Your task to perform on an android device: open app "Spotify: Music and Podcasts" Image 0: 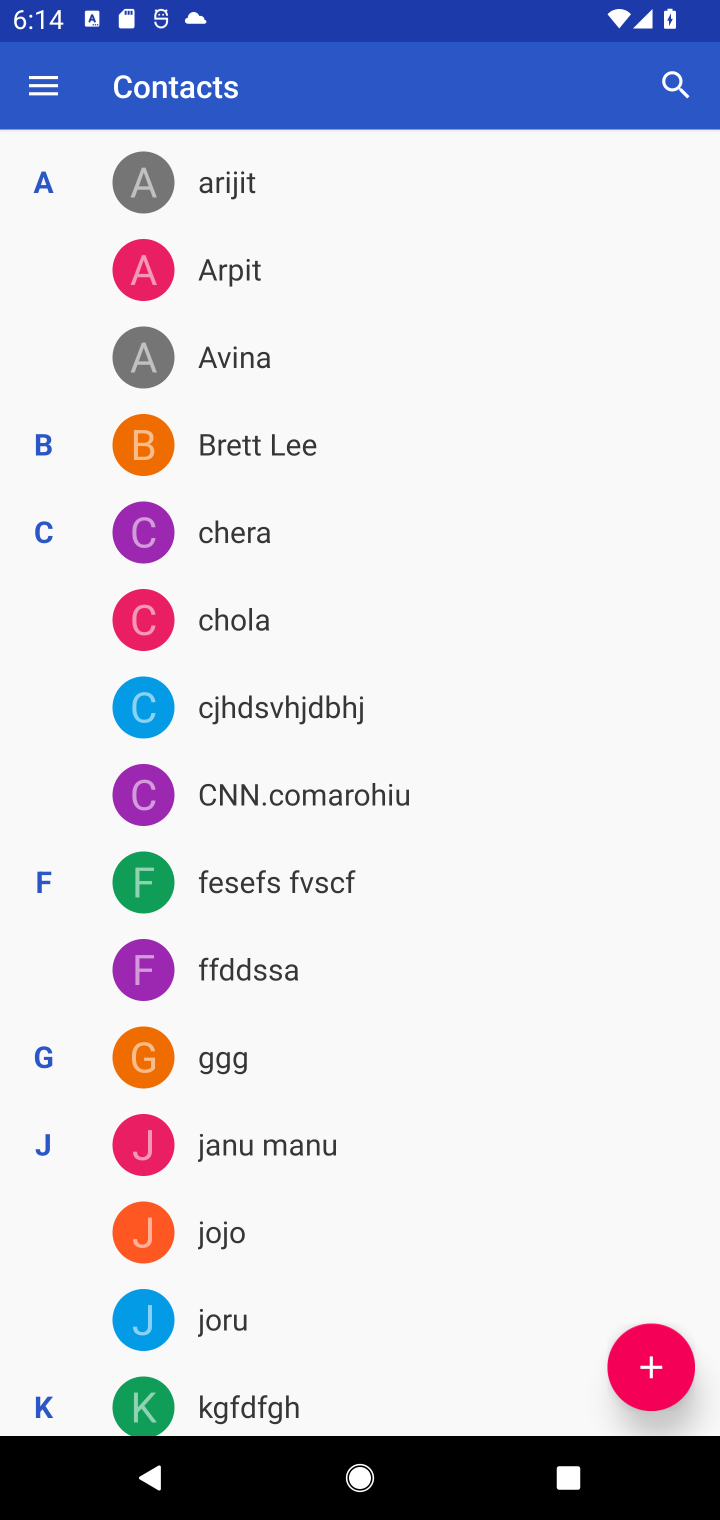
Step 0: press home button
Your task to perform on an android device: open app "Spotify: Music and Podcasts" Image 1: 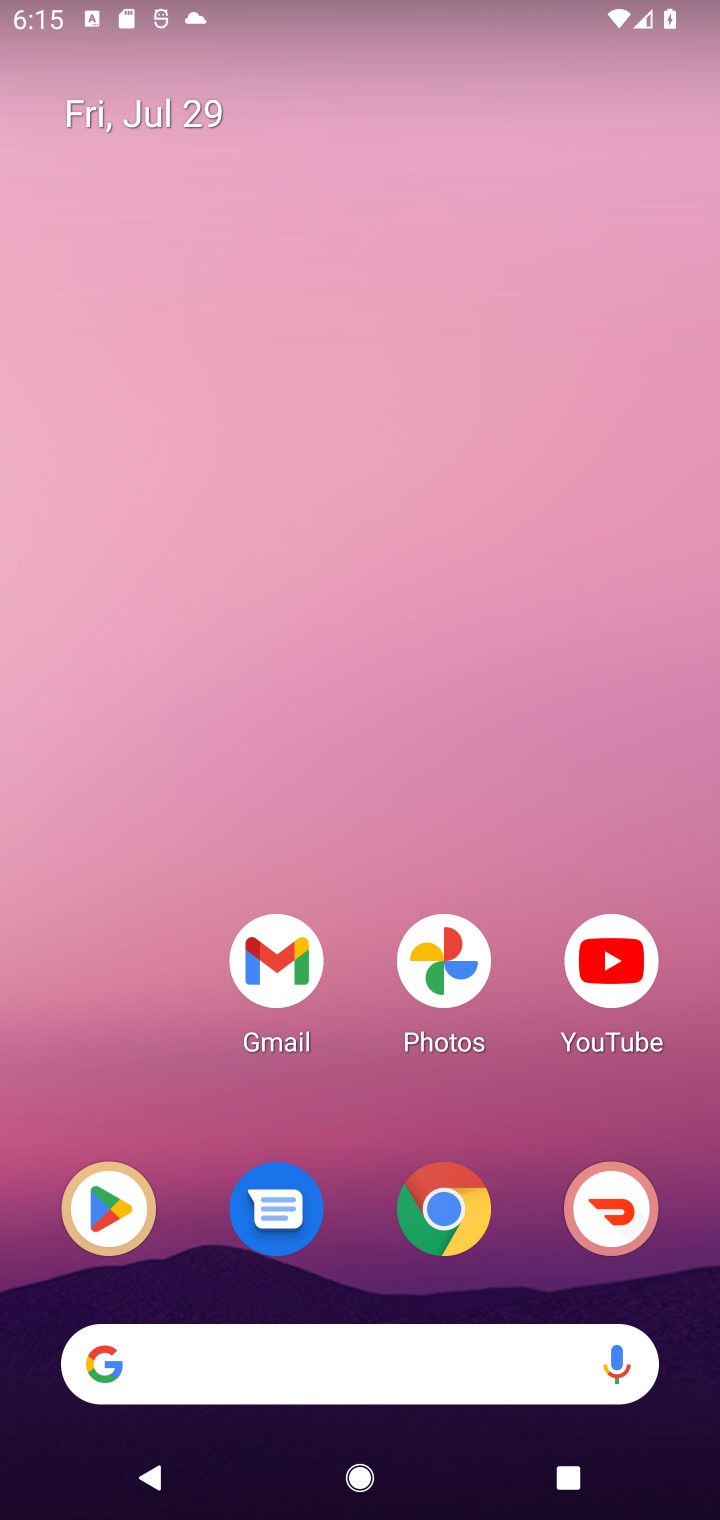
Step 1: click (106, 1213)
Your task to perform on an android device: open app "Spotify: Music and Podcasts" Image 2: 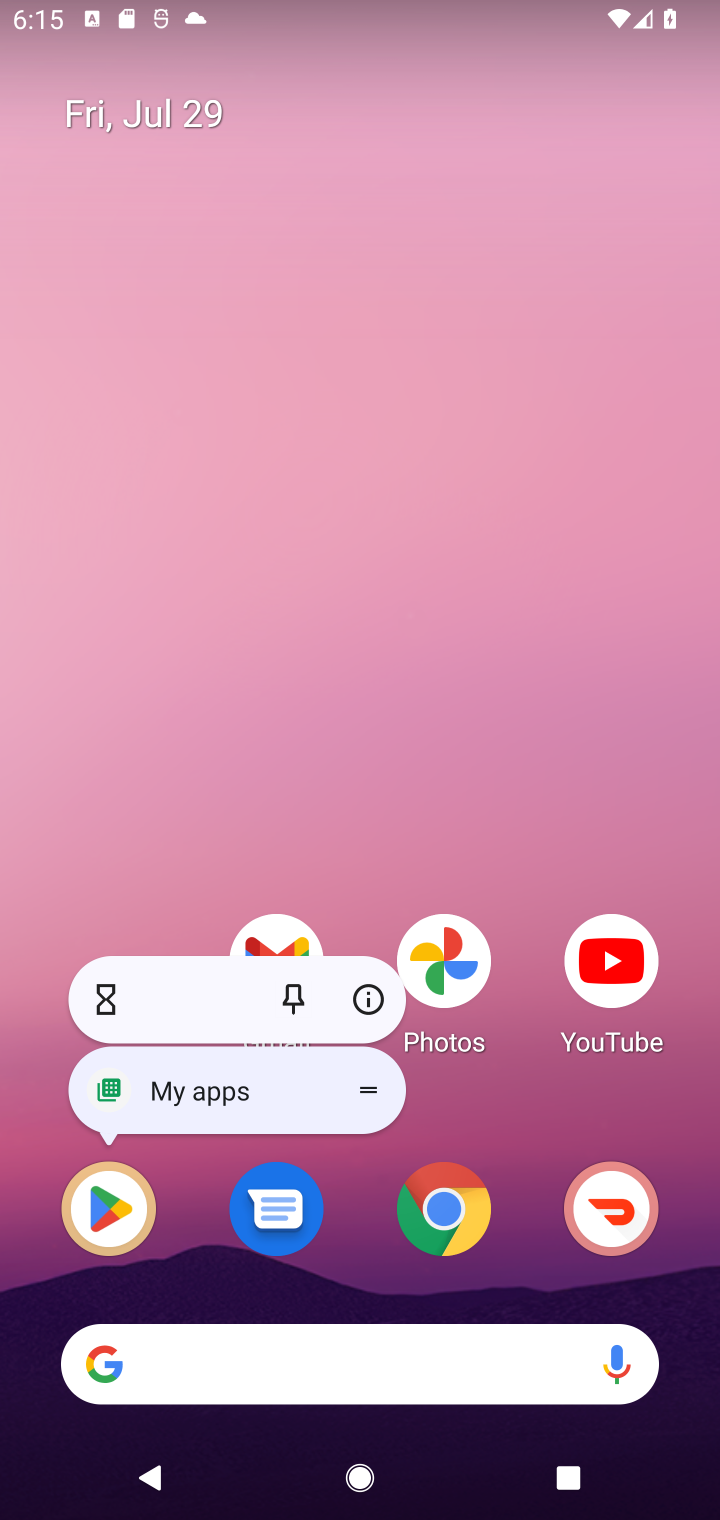
Step 2: click (106, 1213)
Your task to perform on an android device: open app "Spotify: Music and Podcasts" Image 3: 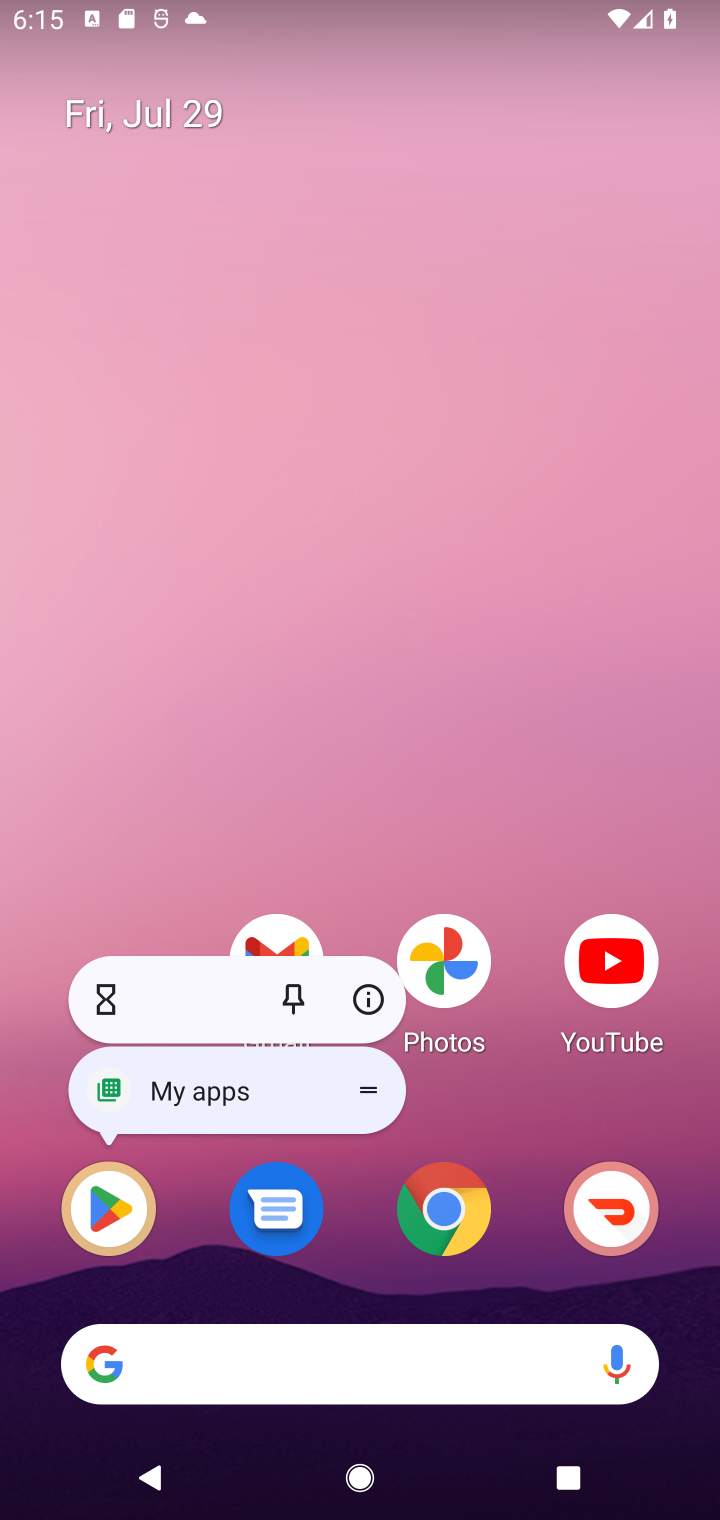
Step 3: click (106, 1213)
Your task to perform on an android device: open app "Spotify: Music and Podcasts" Image 4: 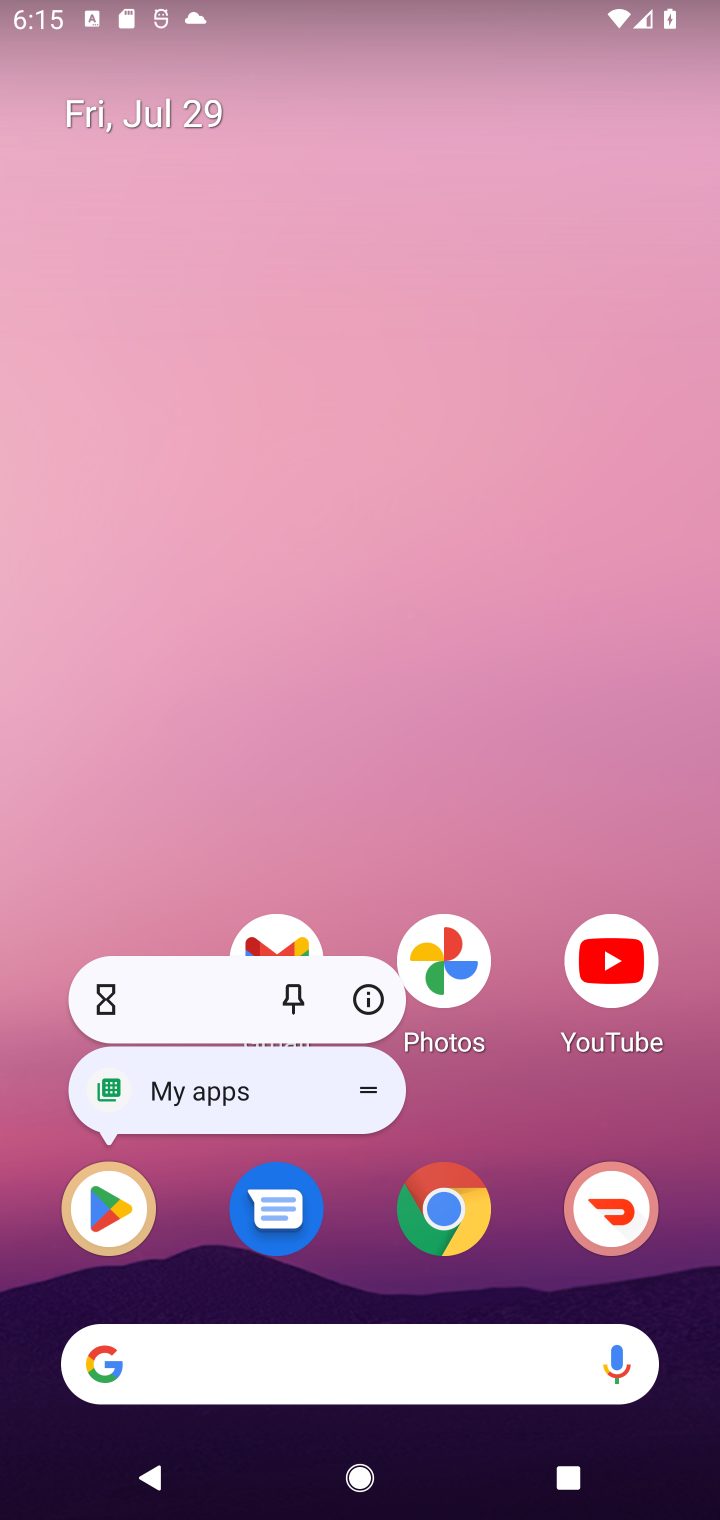
Step 4: click (106, 1213)
Your task to perform on an android device: open app "Spotify: Music and Podcasts" Image 5: 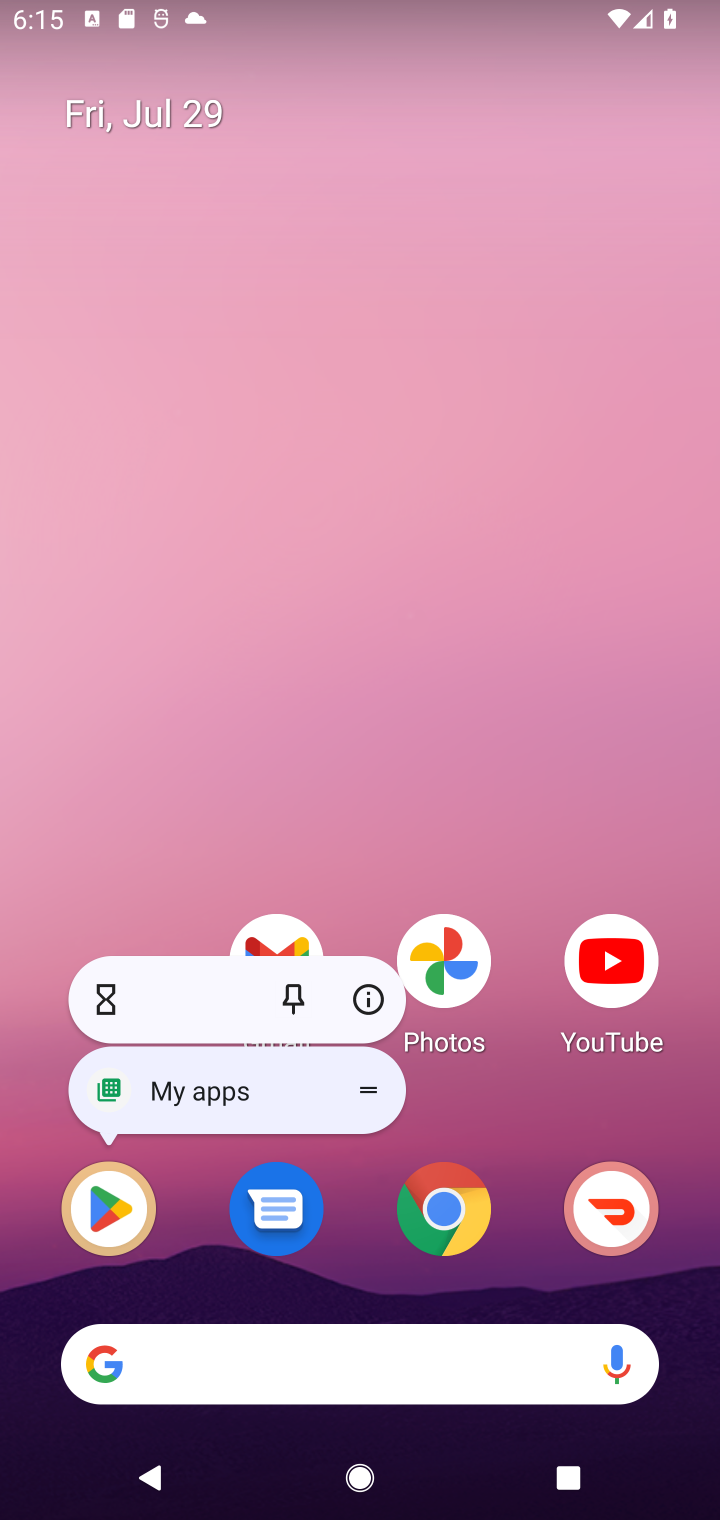
Step 5: click (106, 1213)
Your task to perform on an android device: open app "Spotify: Music and Podcasts" Image 6: 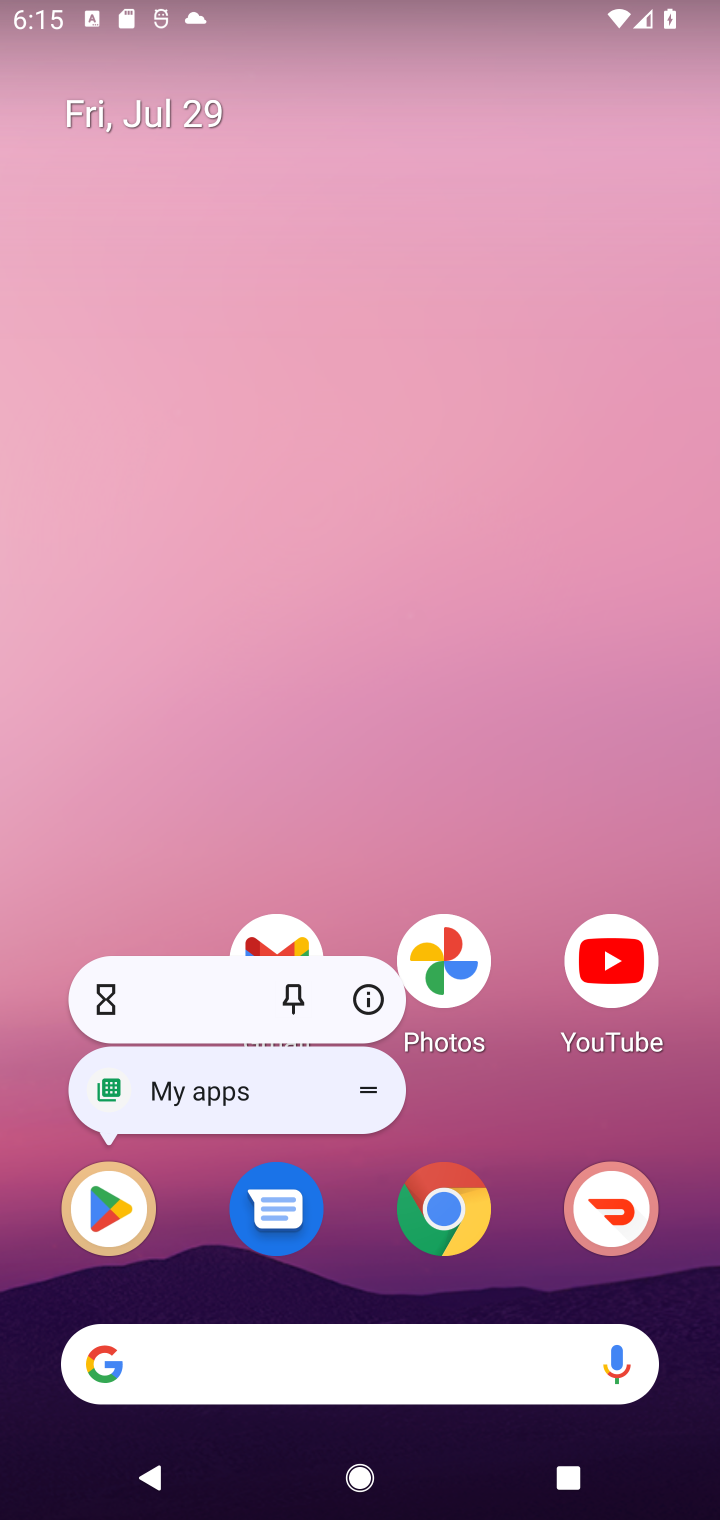
Step 6: click (106, 1213)
Your task to perform on an android device: open app "Spotify: Music and Podcasts" Image 7: 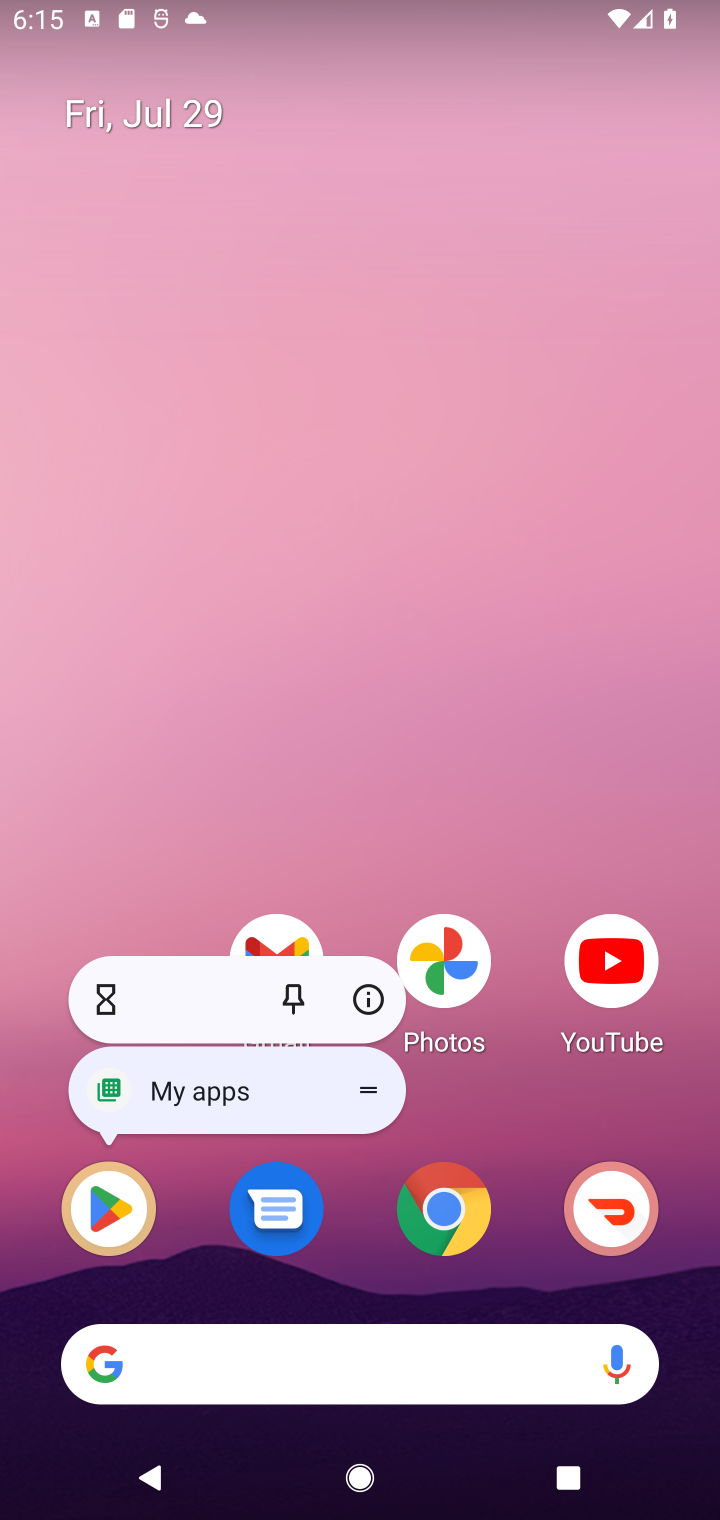
Step 7: click (106, 1213)
Your task to perform on an android device: open app "Spotify: Music and Podcasts" Image 8: 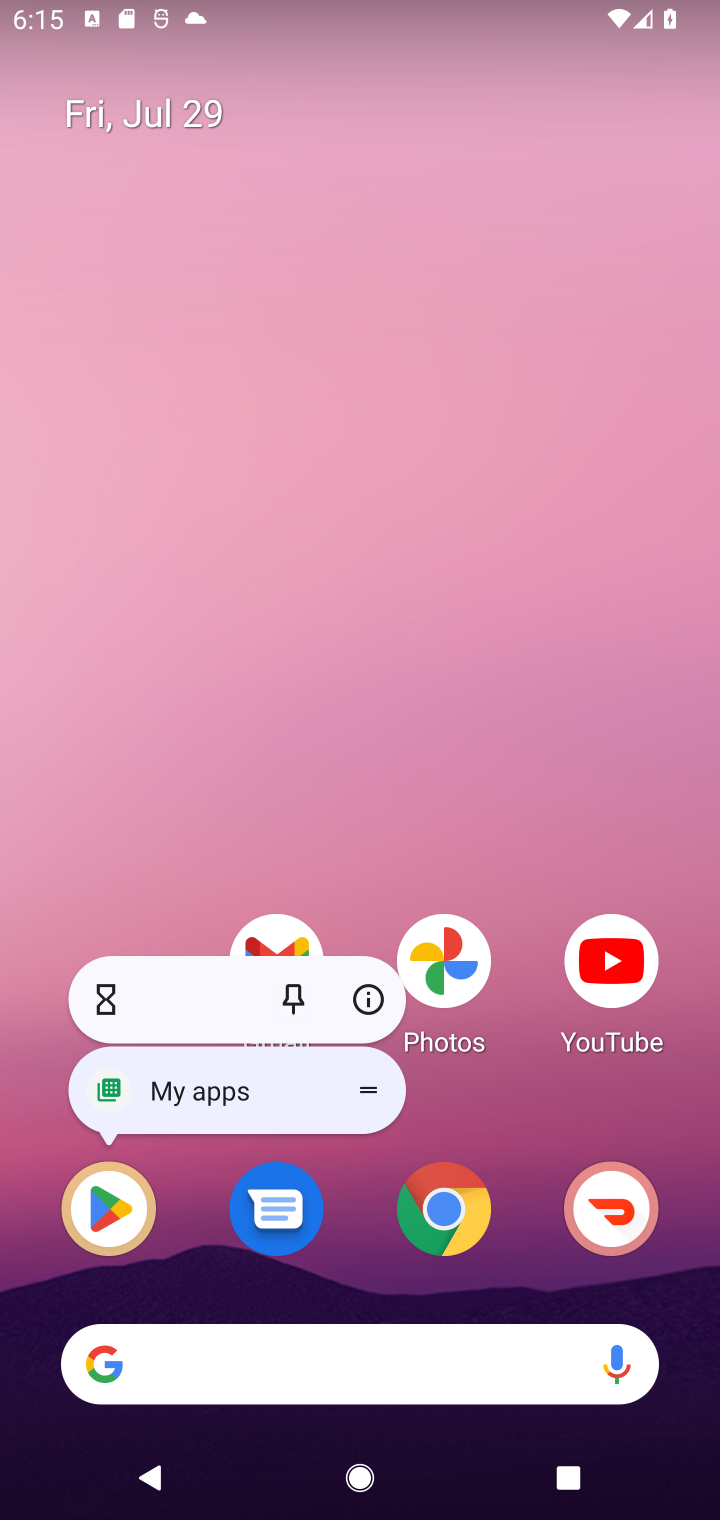
Step 8: click (106, 1213)
Your task to perform on an android device: open app "Spotify: Music and Podcasts" Image 9: 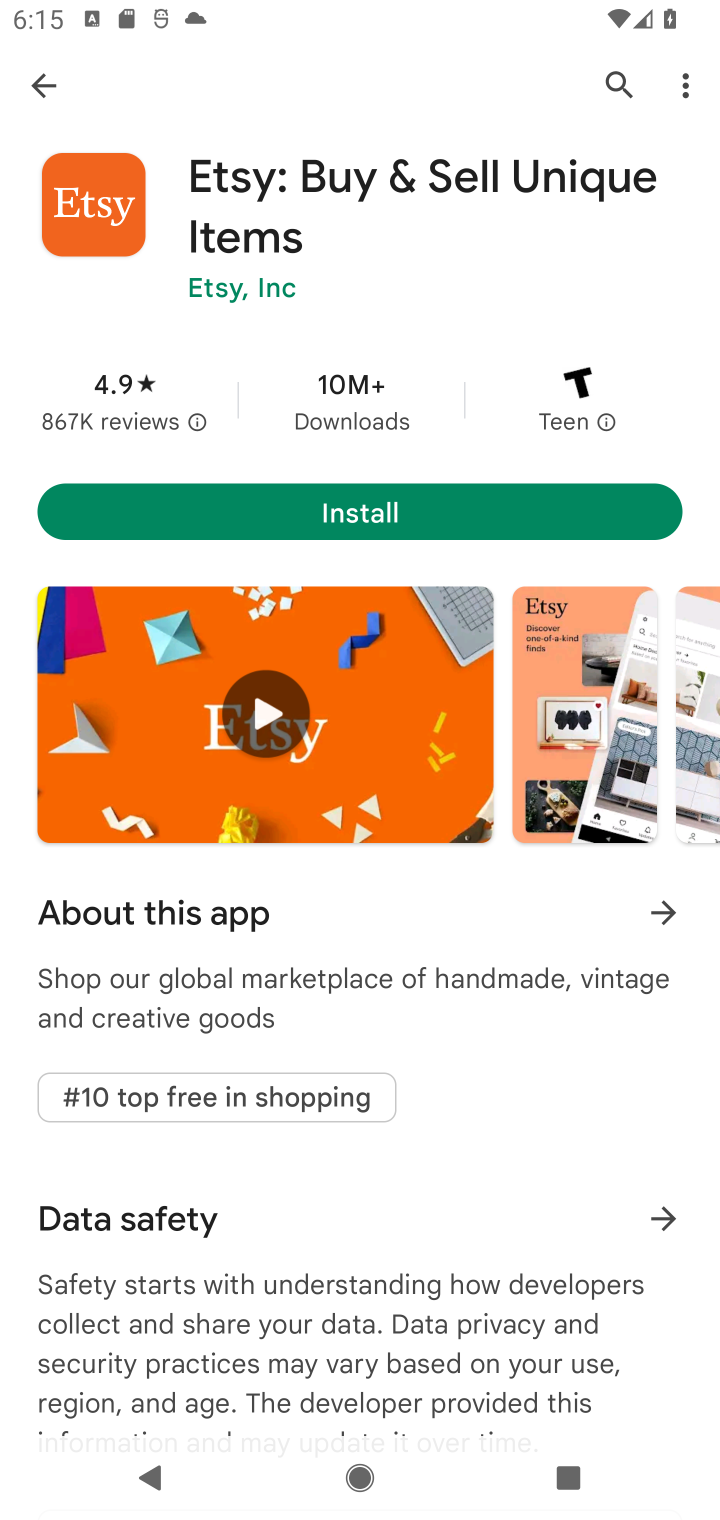
Step 9: click (615, 81)
Your task to perform on an android device: open app "Spotify: Music and Podcasts" Image 10: 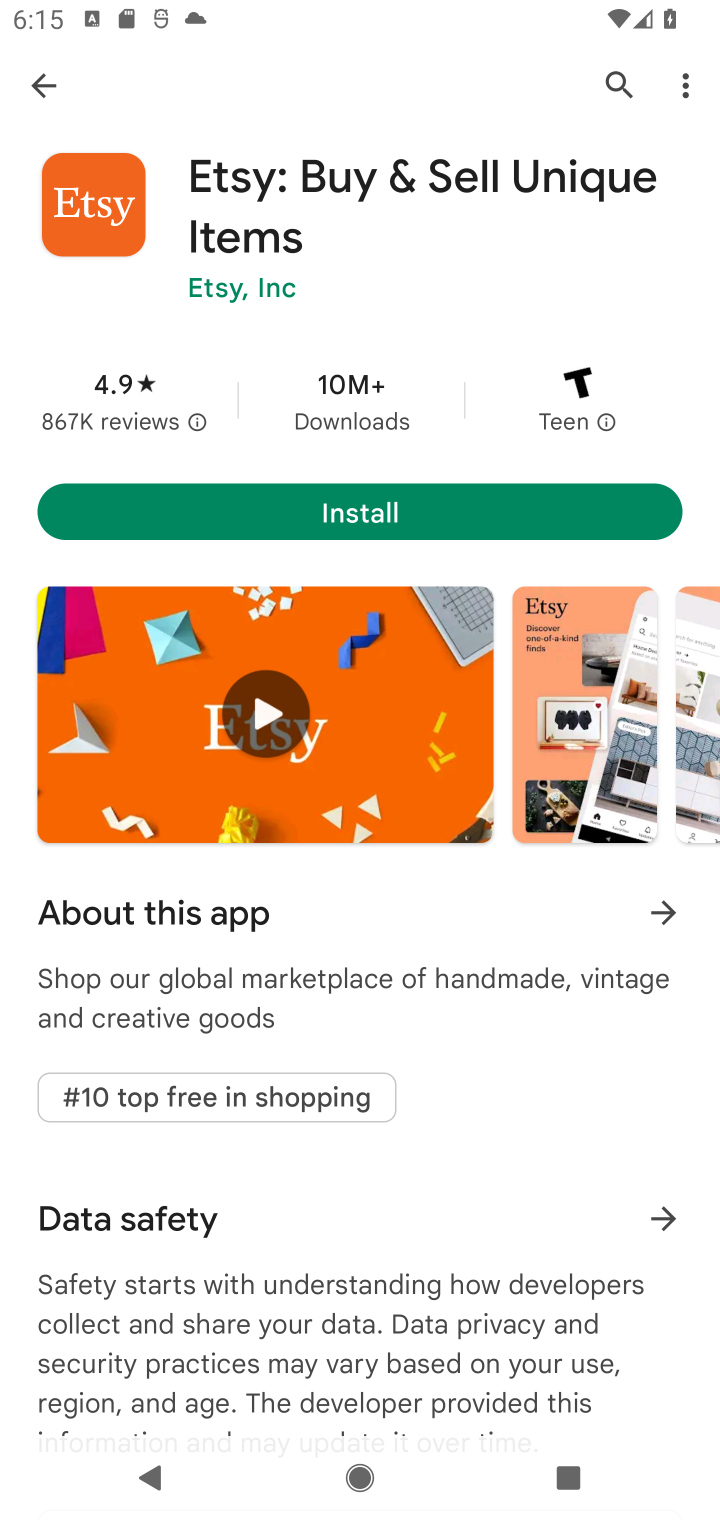
Step 10: click (614, 80)
Your task to perform on an android device: open app "Spotify: Music and Podcasts" Image 11: 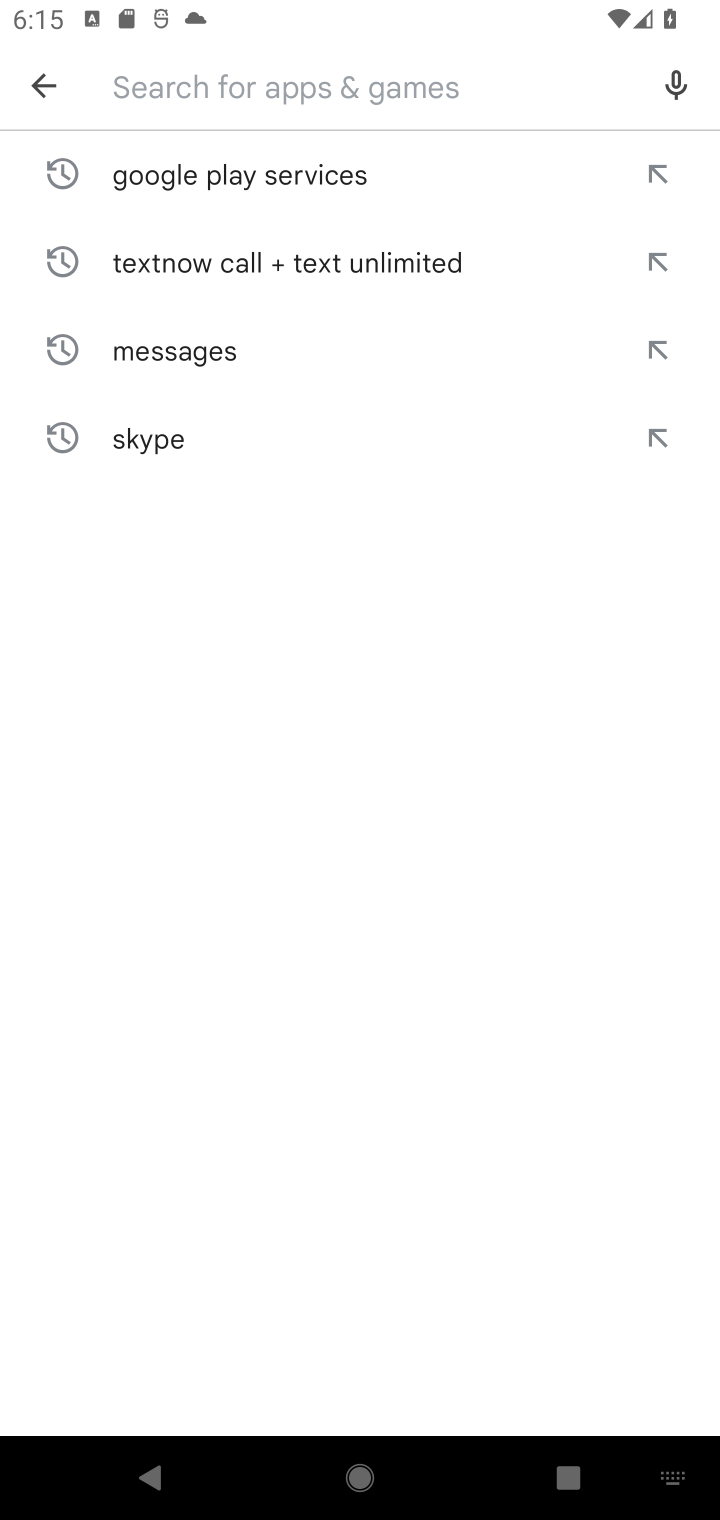
Step 11: type "Spotify: Music and Podcasts"
Your task to perform on an android device: open app "Spotify: Music and Podcasts" Image 12: 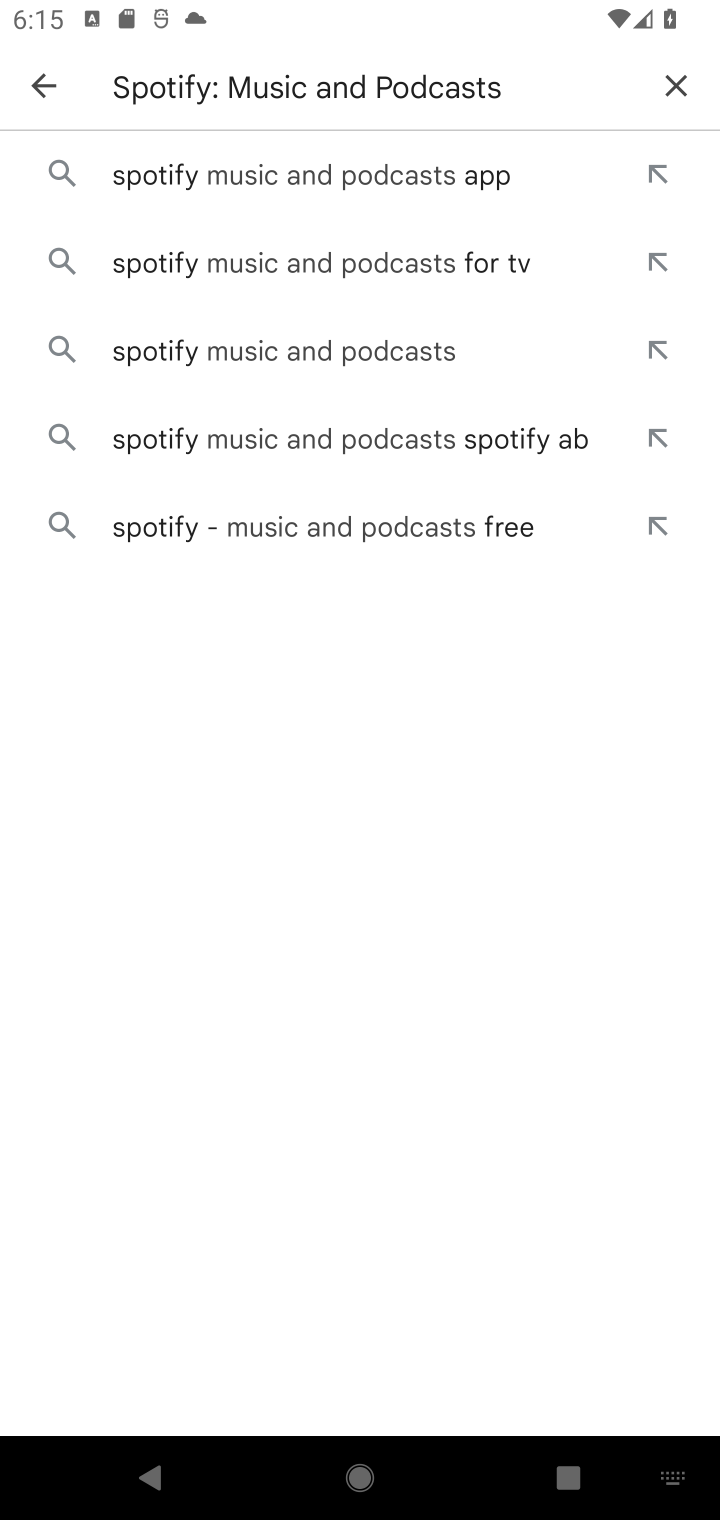
Step 12: click (277, 181)
Your task to perform on an android device: open app "Spotify: Music and Podcasts" Image 13: 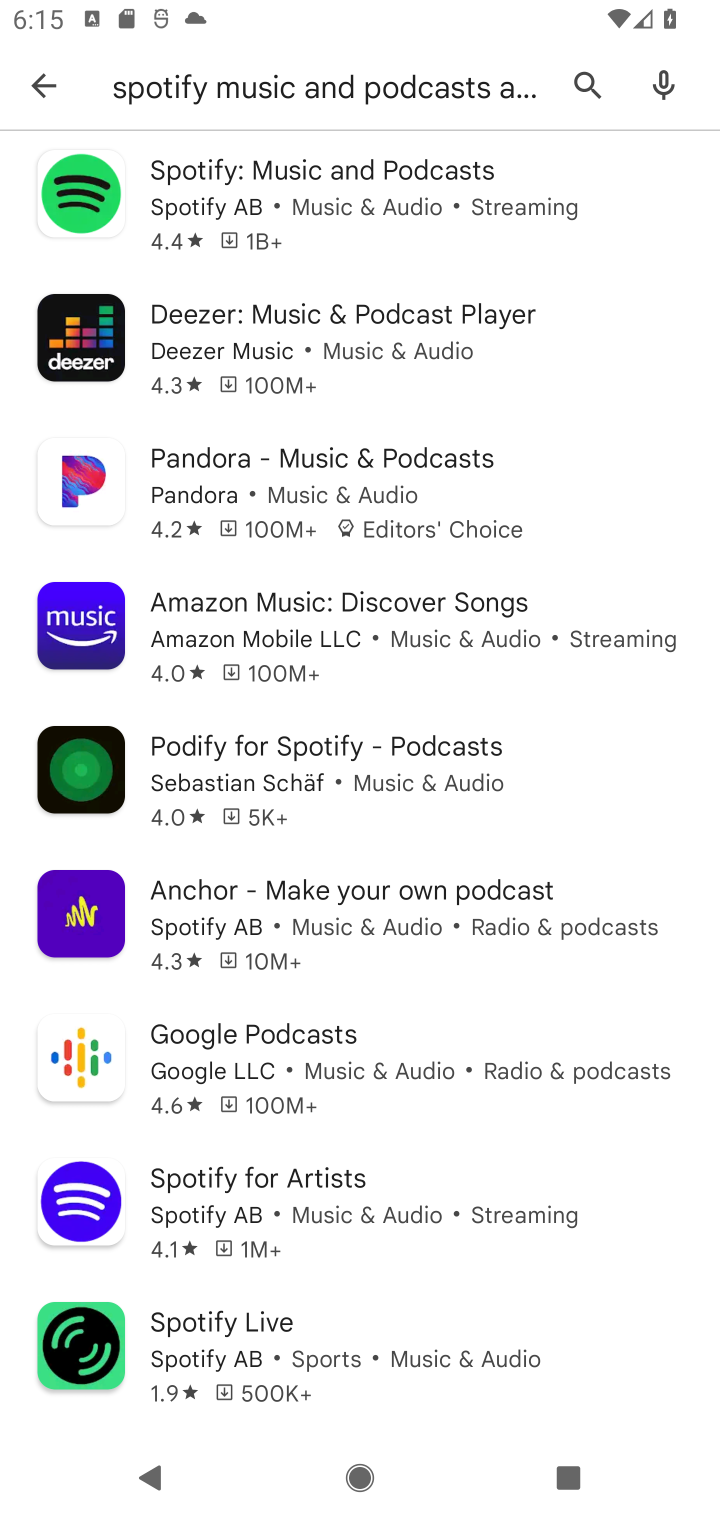
Step 13: click (277, 181)
Your task to perform on an android device: open app "Spotify: Music and Podcasts" Image 14: 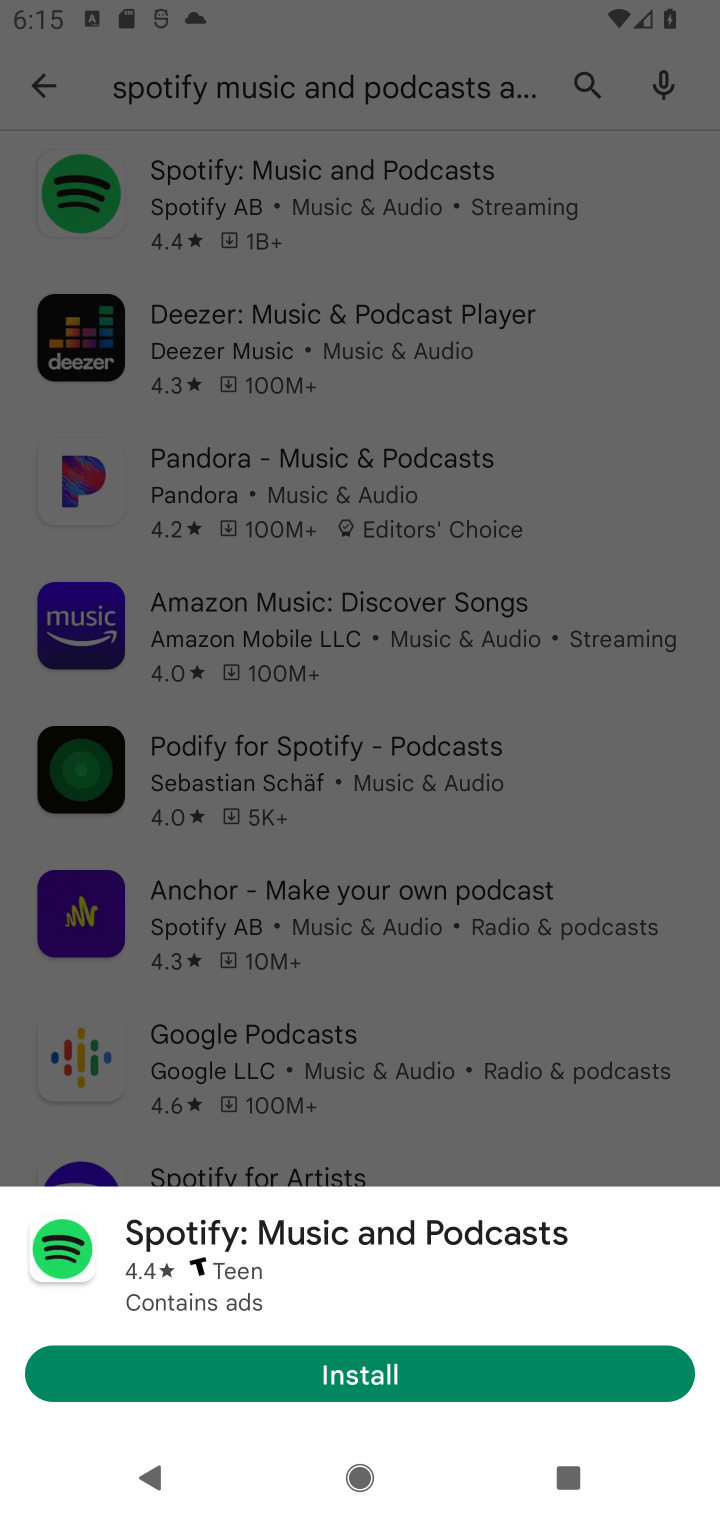
Step 14: task complete